Your task to perform on an android device: uninstall "Microsoft Excel" Image 0: 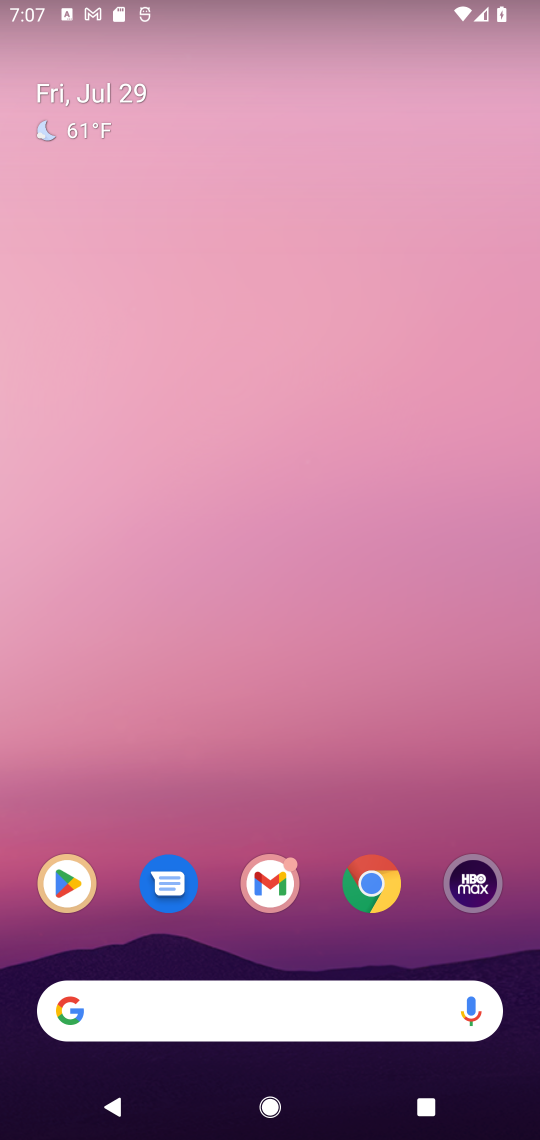
Step 0: click (73, 879)
Your task to perform on an android device: uninstall "Microsoft Excel" Image 1: 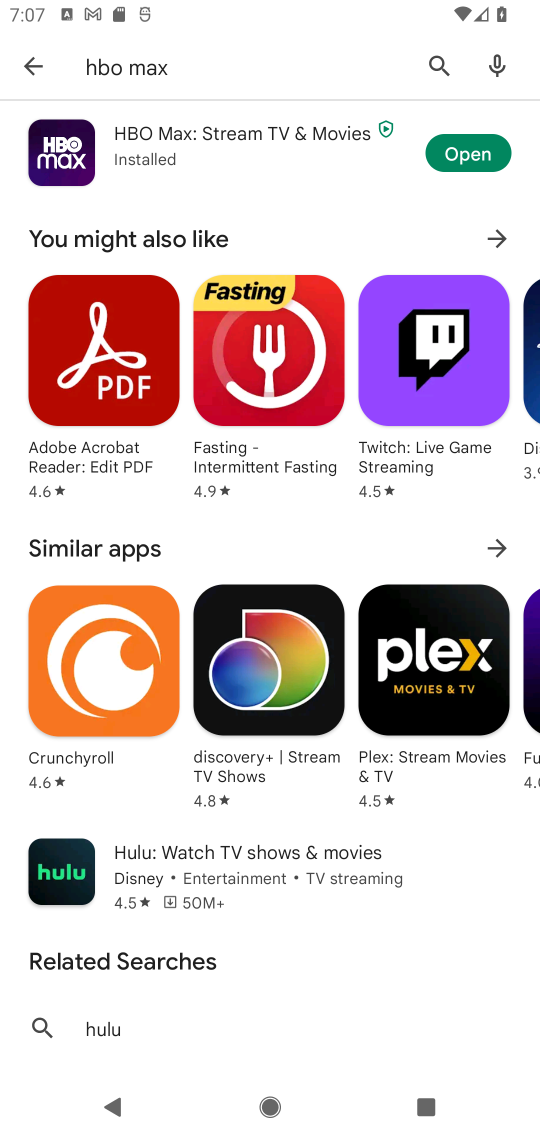
Step 1: click (430, 54)
Your task to perform on an android device: uninstall "Microsoft Excel" Image 2: 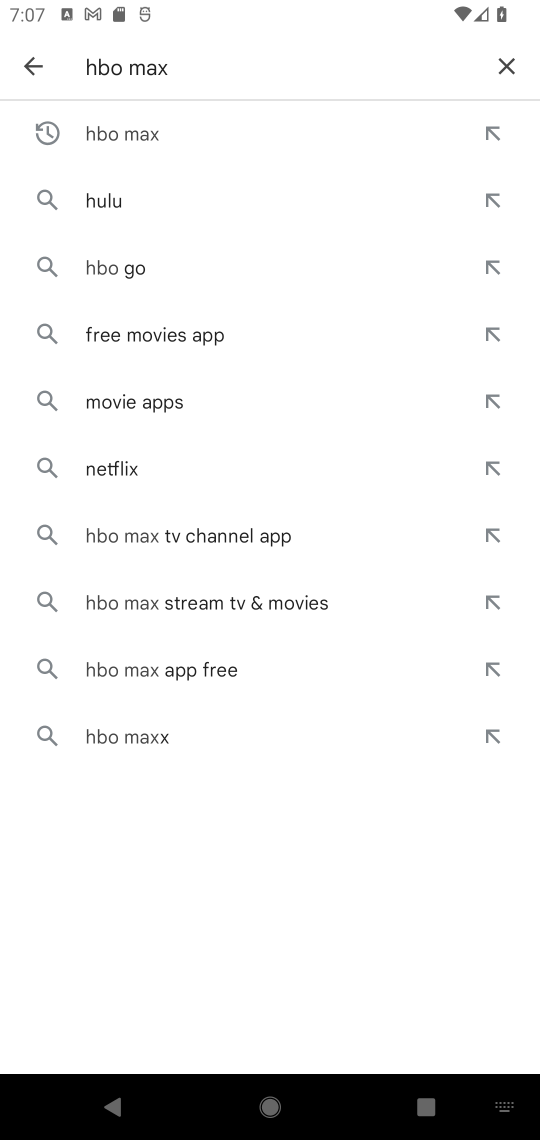
Step 2: click (496, 59)
Your task to perform on an android device: uninstall "Microsoft Excel" Image 3: 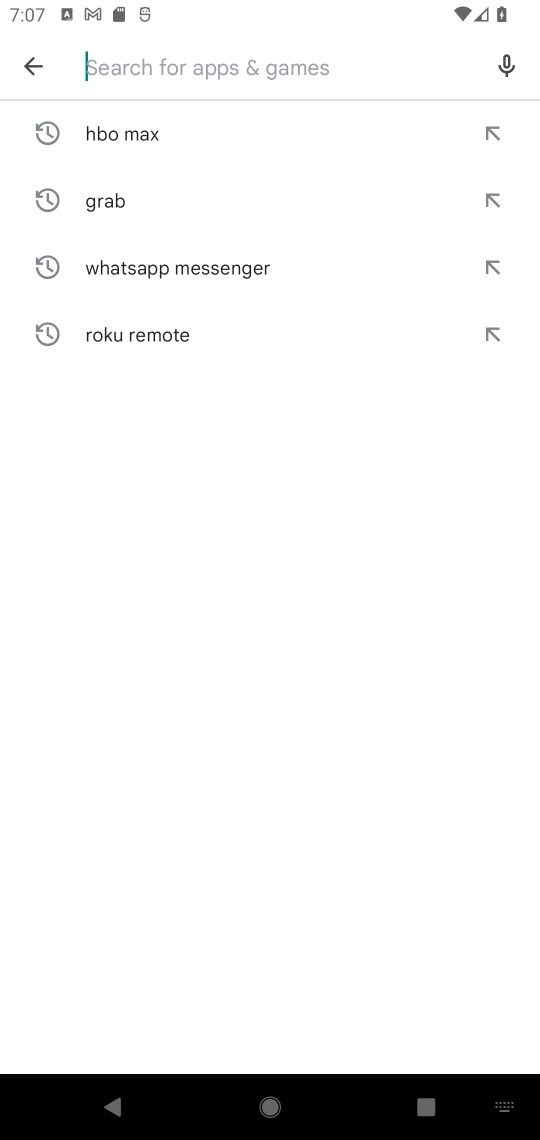
Step 3: click (260, 69)
Your task to perform on an android device: uninstall "Microsoft Excel" Image 4: 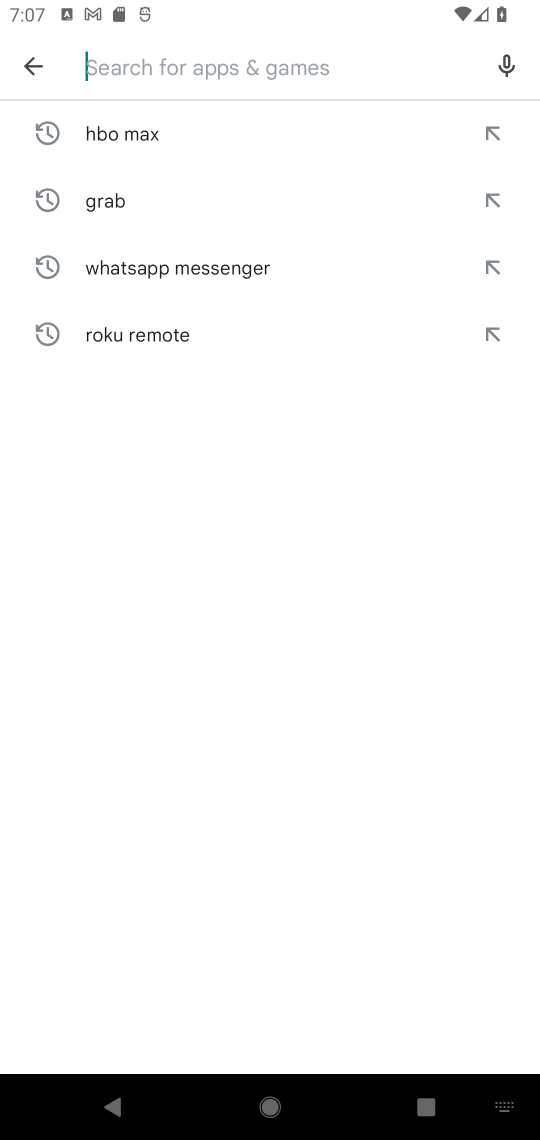
Step 4: type "microsoft excel"
Your task to perform on an android device: uninstall "Microsoft Excel" Image 5: 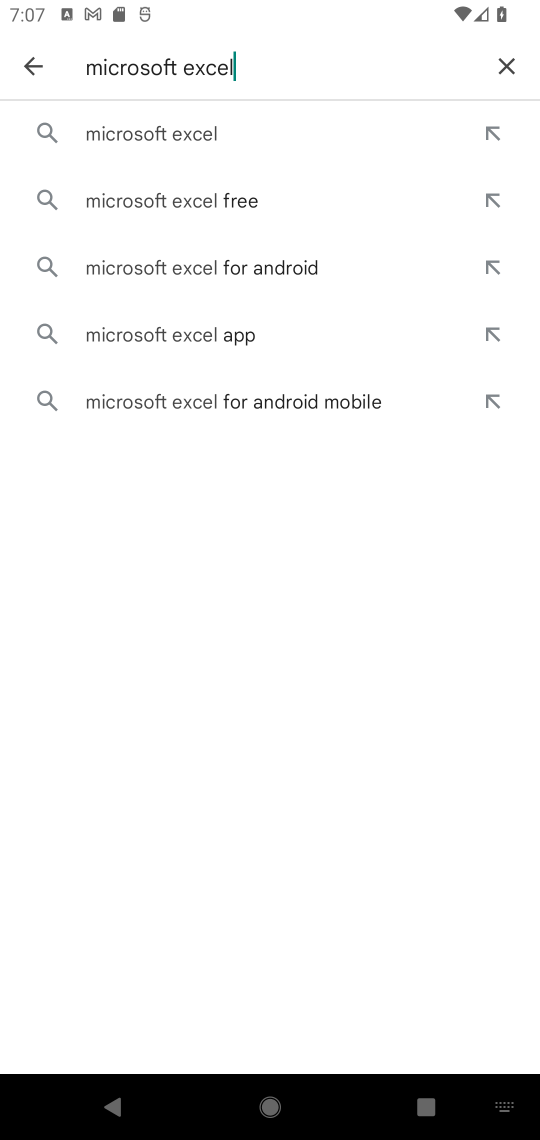
Step 5: click (153, 134)
Your task to perform on an android device: uninstall "Microsoft Excel" Image 6: 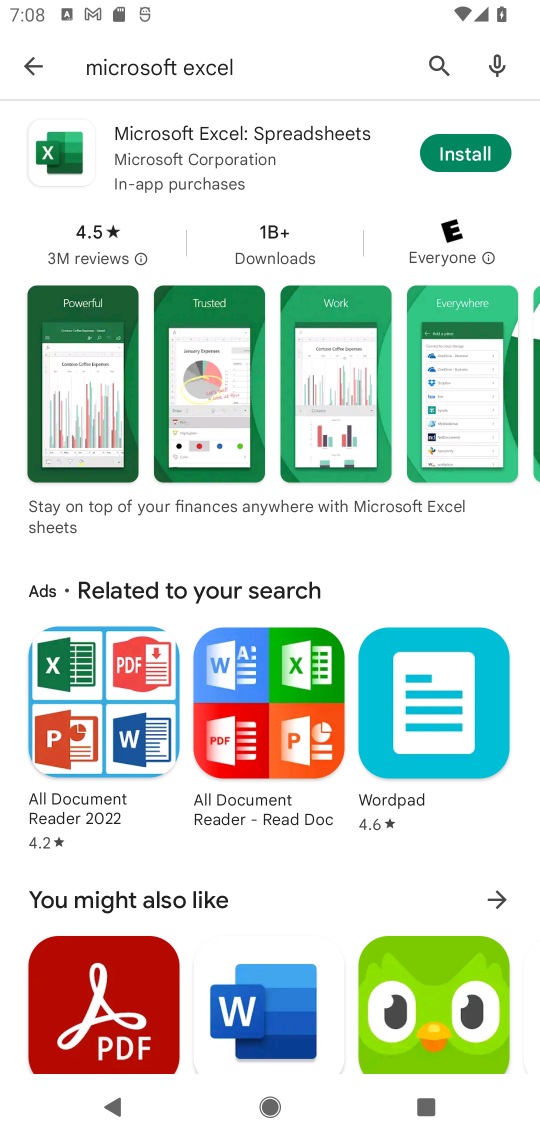
Step 6: task complete